Your task to perform on an android device: open a bookmark in the chrome app Image 0: 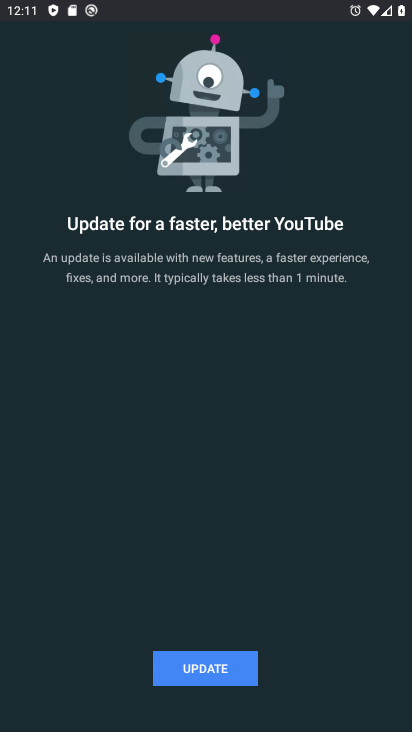
Step 0: press home button
Your task to perform on an android device: open a bookmark in the chrome app Image 1: 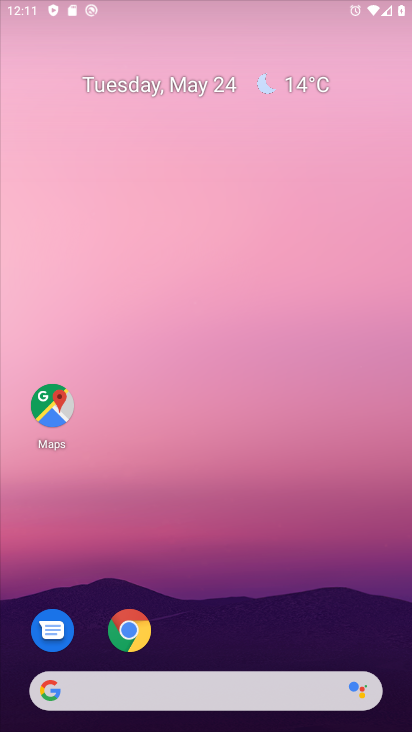
Step 1: drag from (348, 639) to (300, 173)
Your task to perform on an android device: open a bookmark in the chrome app Image 2: 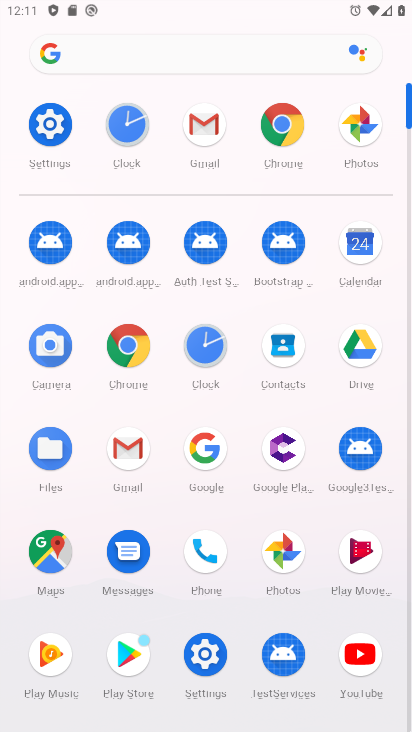
Step 2: click (139, 351)
Your task to perform on an android device: open a bookmark in the chrome app Image 3: 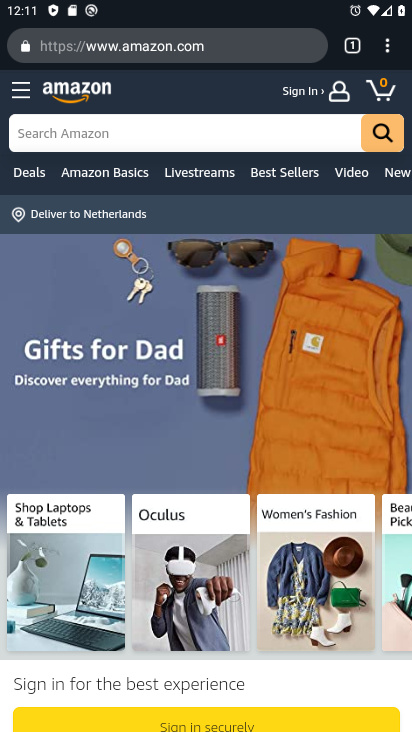
Step 3: task complete